Your task to perform on an android device: turn off javascript in the chrome app Image 0: 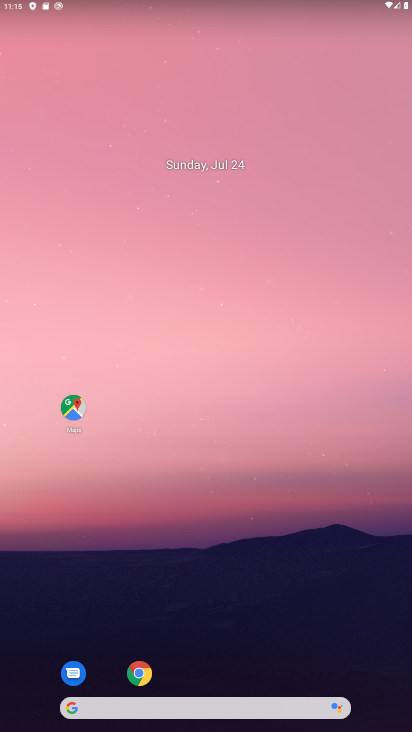
Step 0: drag from (290, 549) to (16, 10)
Your task to perform on an android device: turn off javascript in the chrome app Image 1: 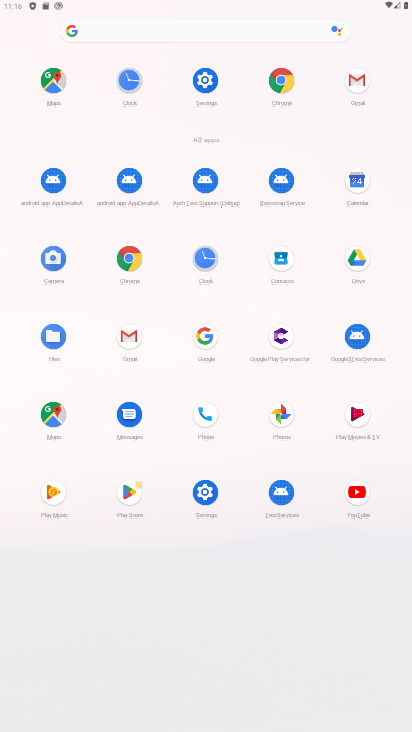
Step 1: click (278, 79)
Your task to perform on an android device: turn off javascript in the chrome app Image 2: 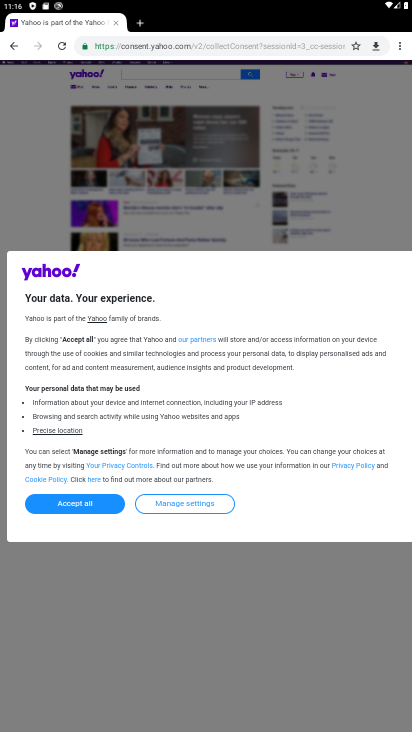
Step 2: drag from (403, 52) to (311, 337)
Your task to perform on an android device: turn off javascript in the chrome app Image 3: 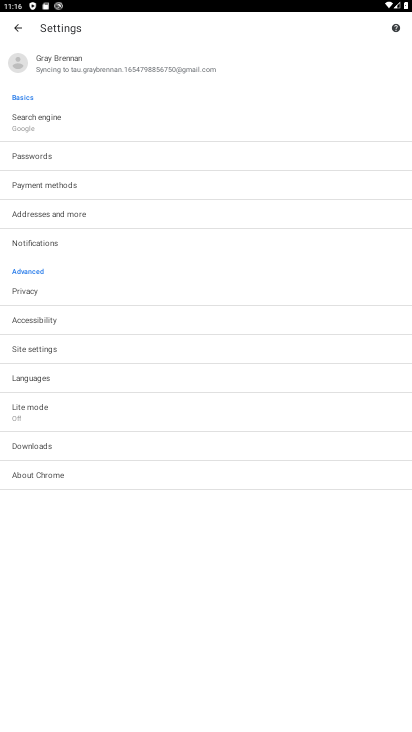
Step 3: click (38, 349)
Your task to perform on an android device: turn off javascript in the chrome app Image 4: 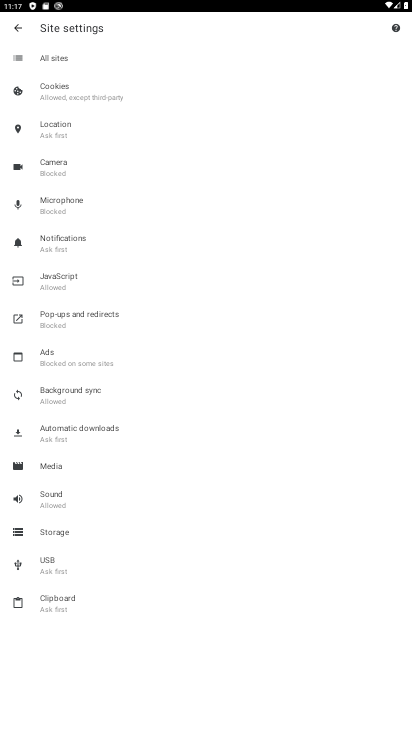
Step 4: click (54, 286)
Your task to perform on an android device: turn off javascript in the chrome app Image 5: 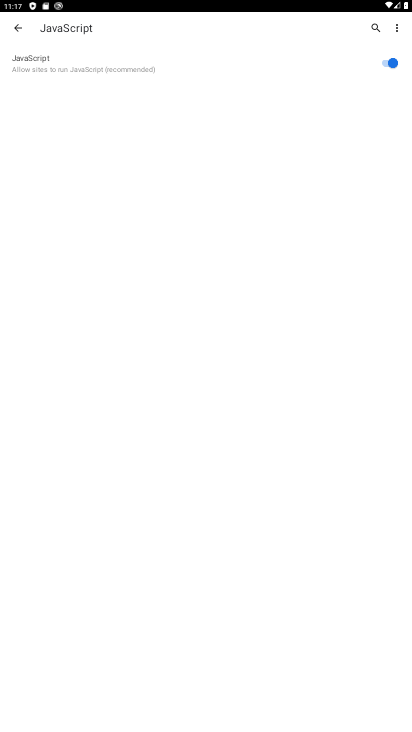
Step 5: click (397, 66)
Your task to perform on an android device: turn off javascript in the chrome app Image 6: 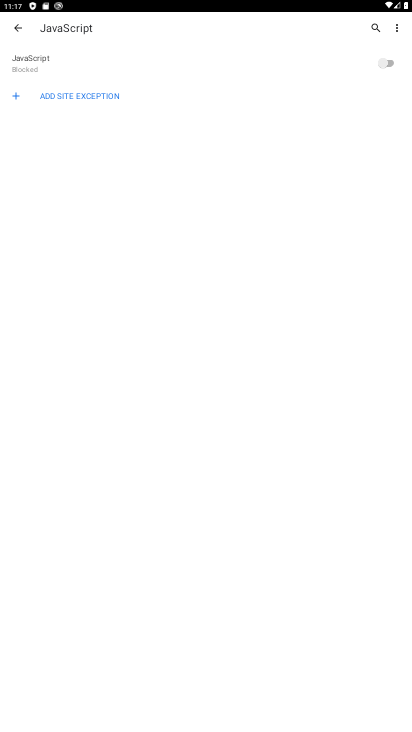
Step 6: task complete